Your task to perform on an android device: open a bookmark in the chrome app Image 0: 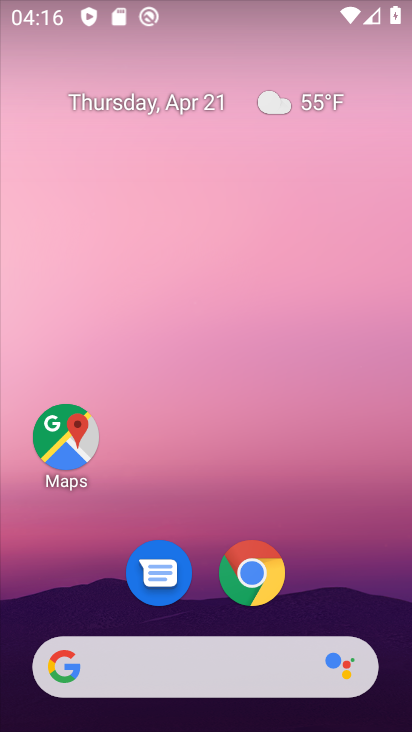
Step 0: click (261, 564)
Your task to perform on an android device: open a bookmark in the chrome app Image 1: 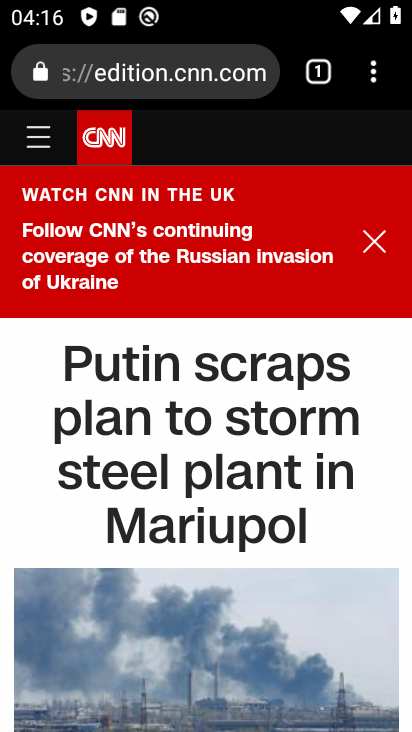
Step 1: task complete